Your task to perform on an android device: Open privacy settings Image 0: 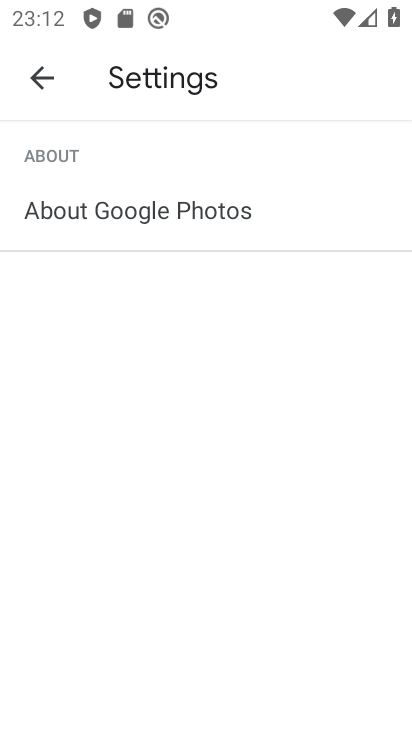
Step 0: press home button
Your task to perform on an android device: Open privacy settings Image 1: 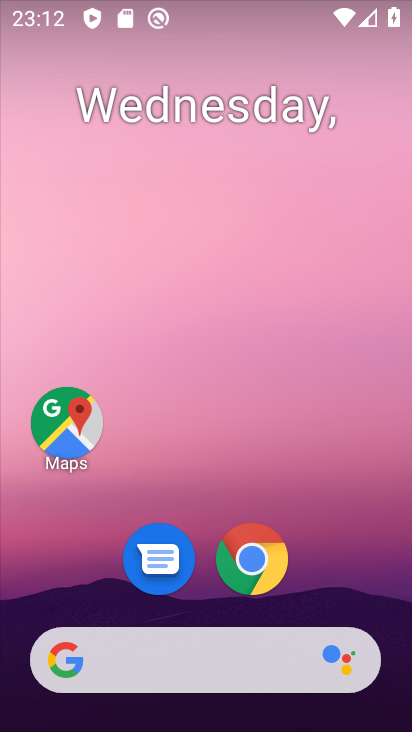
Step 1: click (229, 173)
Your task to perform on an android device: Open privacy settings Image 2: 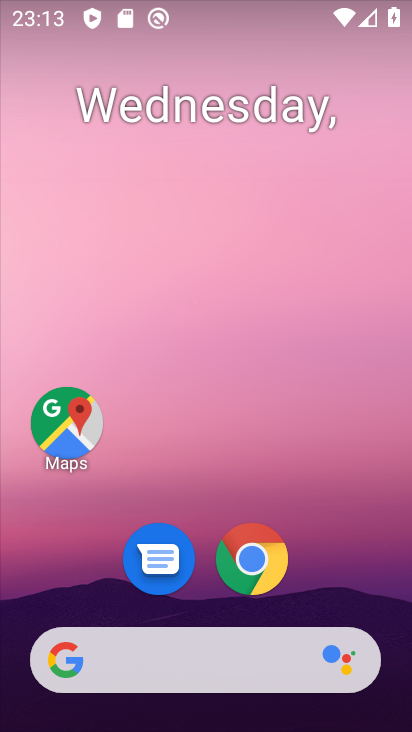
Step 2: drag from (200, 594) to (244, 191)
Your task to perform on an android device: Open privacy settings Image 3: 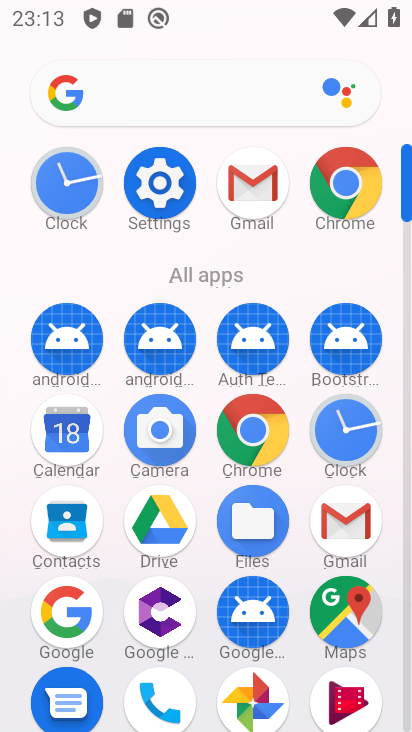
Step 3: click (157, 177)
Your task to perform on an android device: Open privacy settings Image 4: 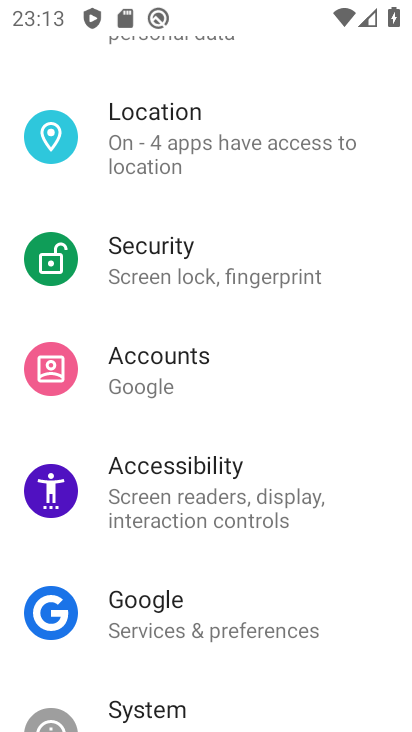
Step 4: drag from (240, 276) to (238, 615)
Your task to perform on an android device: Open privacy settings Image 5: 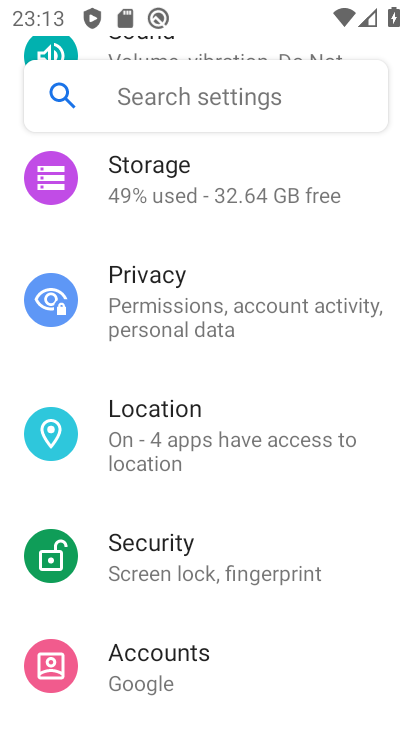
Step 5: click (195, 322)
Your task to perform on an android device: Open privacy settings Image 6: 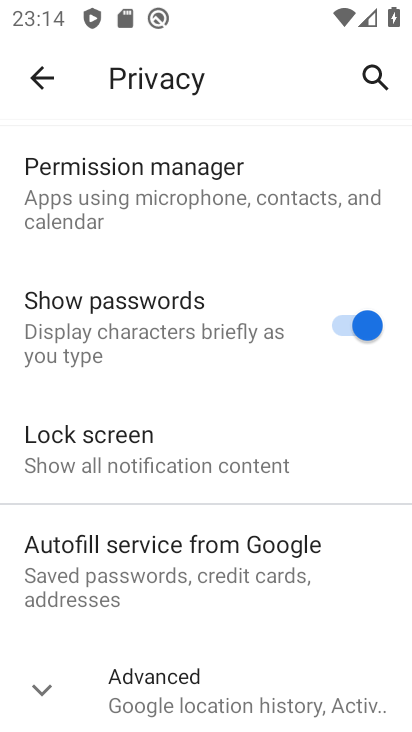
Step 6: task complete